Your task to perform on an android device: change keyboard looks Image 0: 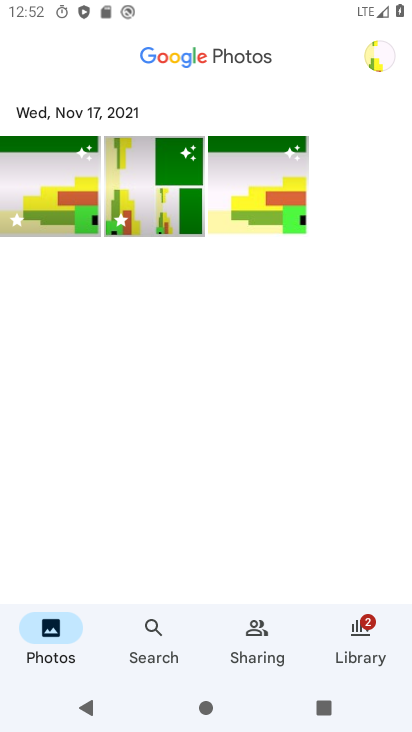
Step 0: press home button
Your task to perform on an android device: change keyboard looks Image 1: 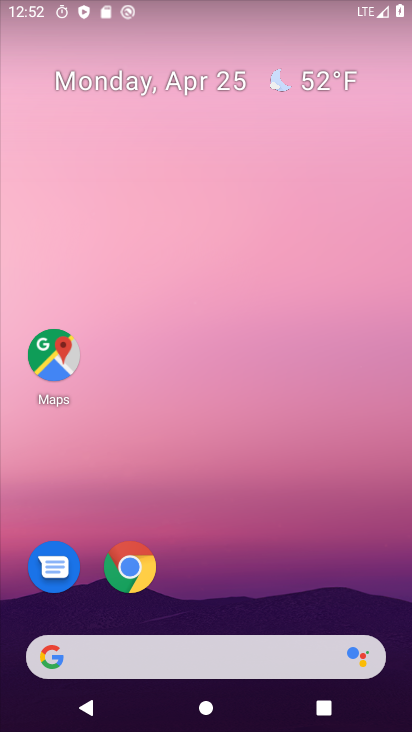
Step 1: drag from (234, 589) to (296, 0)
Your task to perform on an android device: change keyboard looks Image 2: 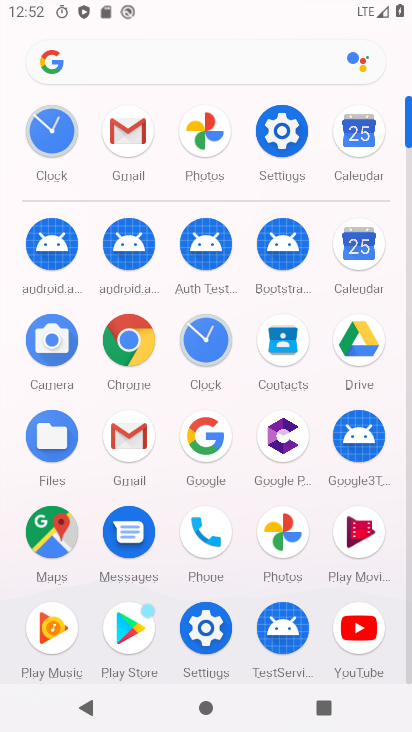
Step 2: click (282, 125)
Your task to perform on an android device: change keyboard looks Image 3: 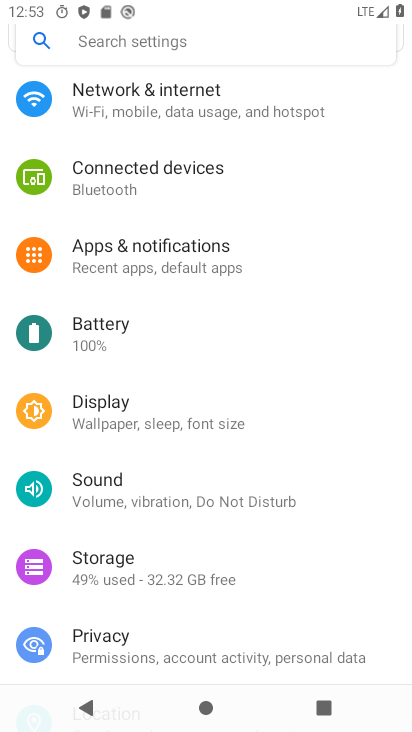
Step 3: drag from (253, 548) to (308, 140)
Your task to perform on an android device: change keyboard looks Image 4: 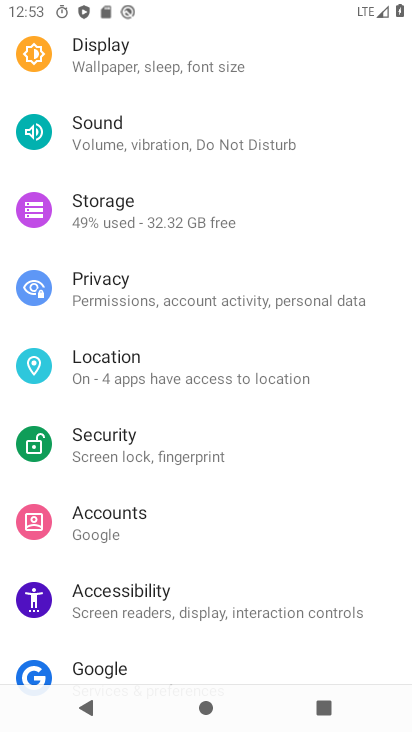
Step 4: drag from (217, 550) to (230, 240)
Your task to perform on an android device: change keyboard looks Image 5: 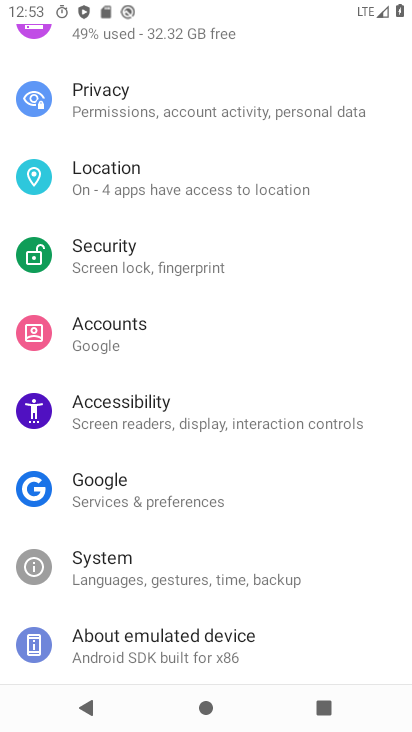
Step 5: click (166, 559)
Your task to perform on an android device: change keyboard looks Image 6: 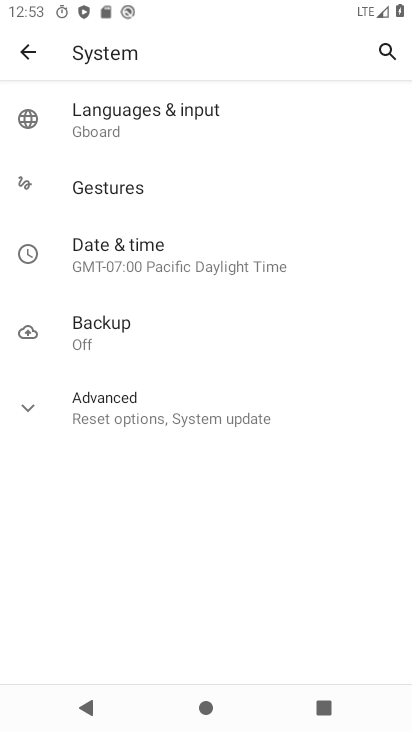
Step 6: click (206, 117)
Your task to perform on an android device: change keyboard looks Image 7: 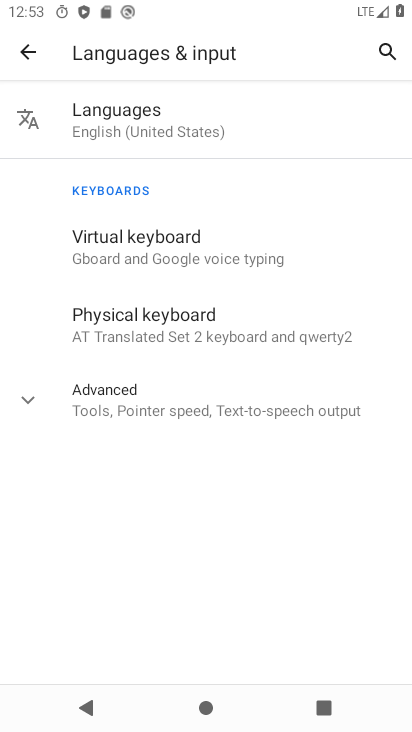
Step 7: click (177, 248)
Your task to perform on an android device: change keyboard looks Image 8: 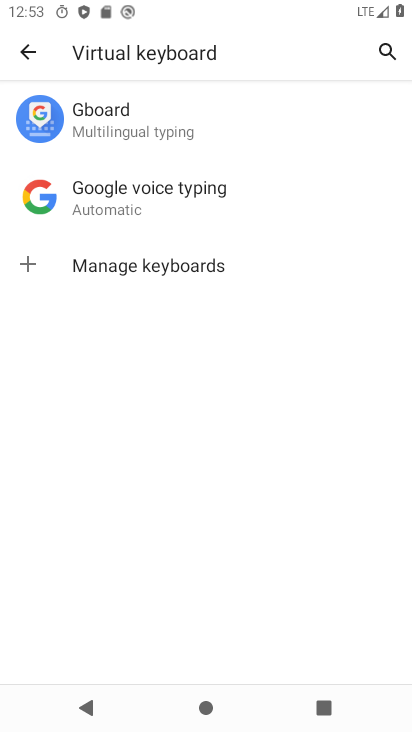
Step 8: click (173, 114)
Your task to perform on an android device: change keyboard looks Image 9: 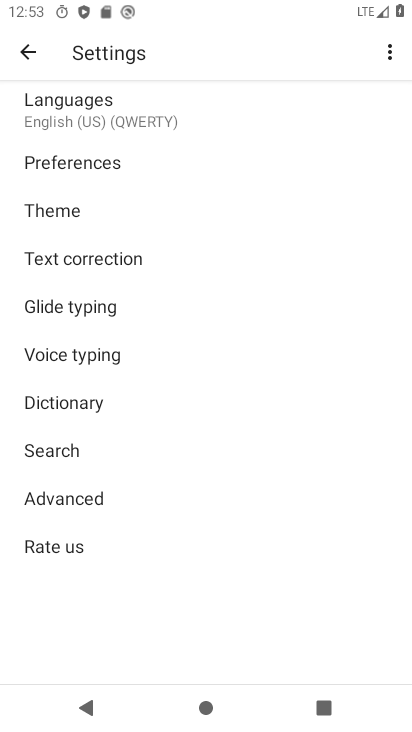
Step 9: click (78, 208)
Your task to perform on an android device: change keyboard looks Image 10: 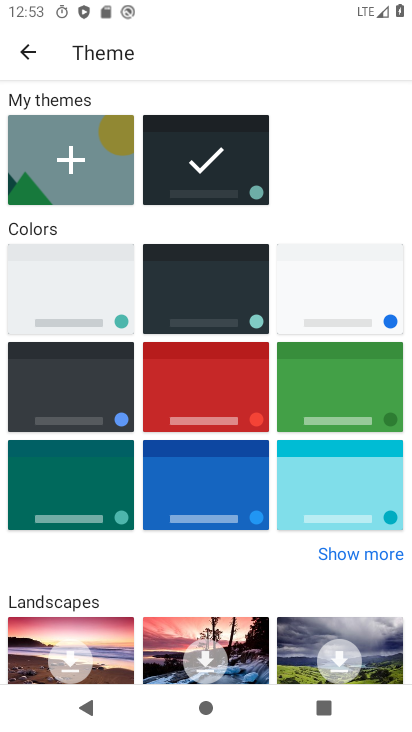
Step 10: click (84, 302)
Your task to perform on an android device: change keyboard looks Image 11: 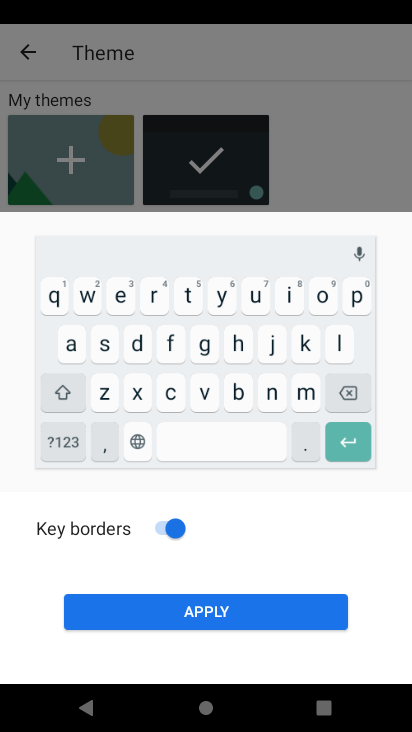
Step 11: click (197, 602)
Your task to perform on an android device: change keyboard looks Image 12: 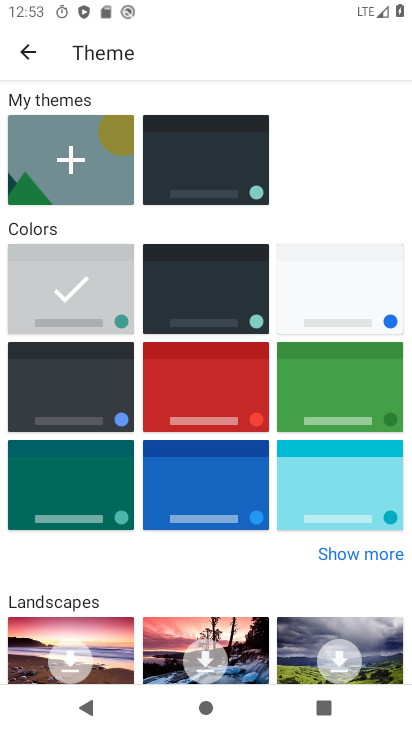
Step 12: task complete